Your task to perform on an android device: turn on airplane mode Image 0: 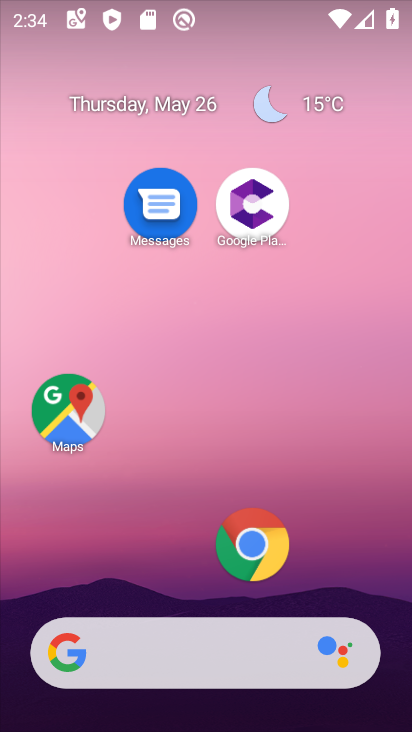
Step 0: drag from (260, 13) to (269, 518)
Your task to perform on an android device: turn on airplane mode Image 1: 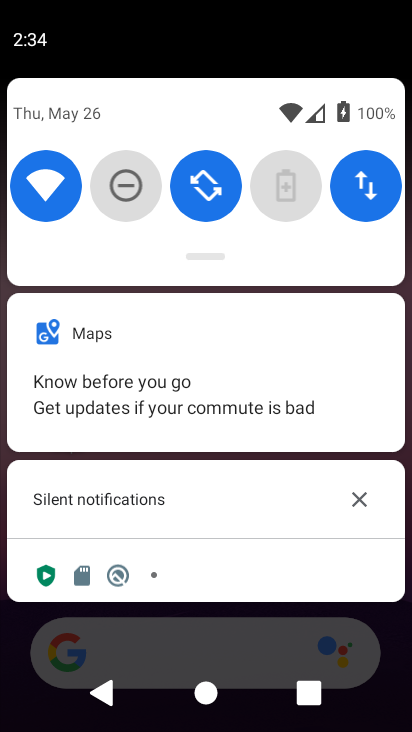
Step 1: drag from (264, 162) to (257, 571)
Your task to perform on an android device: turn on airplane mode Image 2: 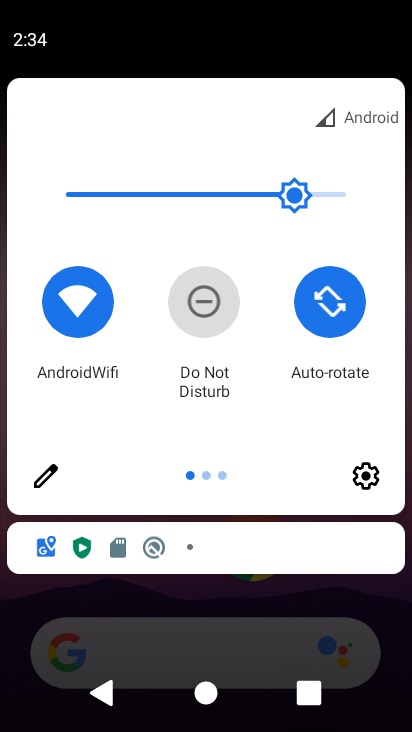
Step 2: drag from (363, 390) to (69, 412)
Your task to perform on an android device: turn on airplane mode Image 3: 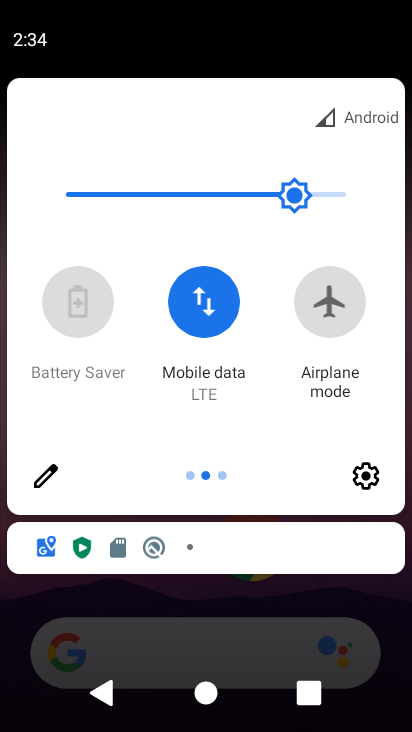
Step 3: click (342, 289)
Your task to perform on an android device: turn on airplane mode Image 4: 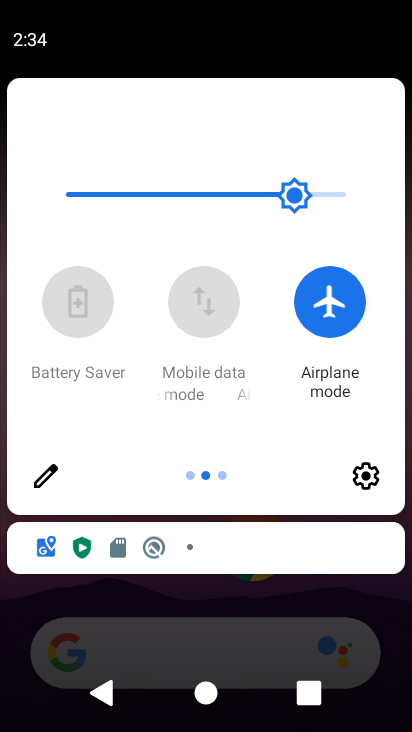
Step 4: click (342, 289)
Your task to perform on an android device: turn on airplane mode Image 5: 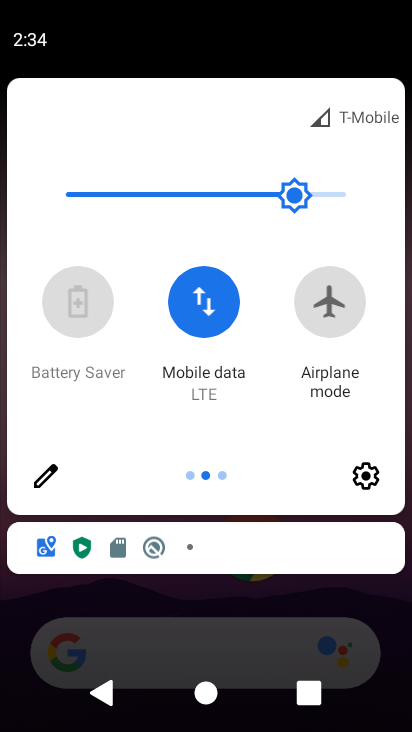
Step 5: click (342, 289)
Your task to perform on an android device: turn on airplane mode Image 6: 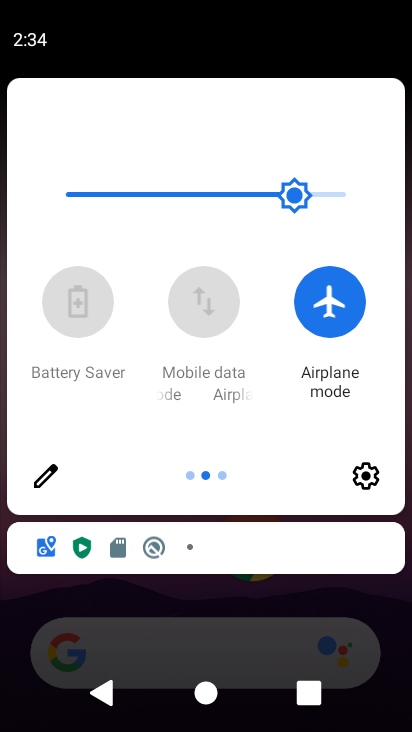
Step 6: task complete